Your task to perform on an android device: Open Youtube and go to "Your channel" Image 0: 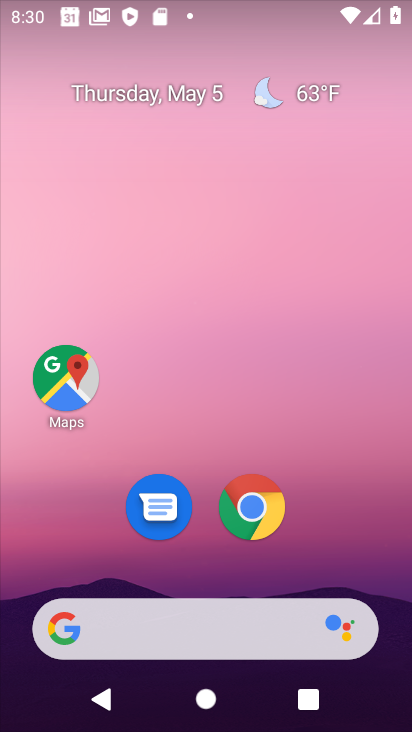
Step 0: drag from (360, 557) to (345, 9)
Your task to perform on an android device: Open Youtube and go to "Your channel" Image 1: 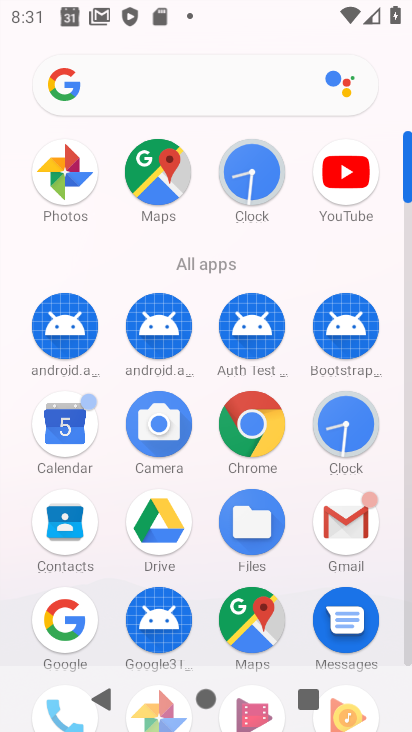
Step 1: drag from (189, 565) to (171, 65)
Your task to perform on an android device: Open Youtube and go to "Your channel" Image 2: 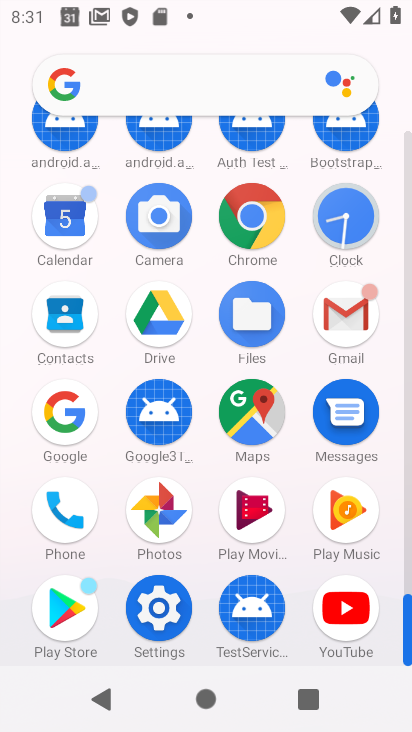
Step 2: click (356, 622)
Your task to perform on an android device: Open Youtube and go to "Your channel" Image 3: 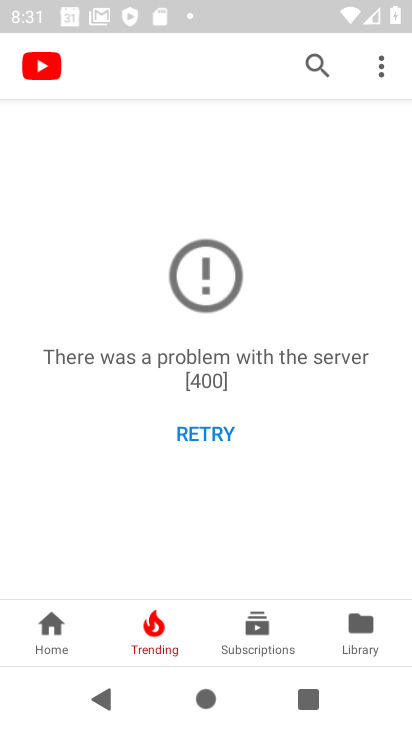
Step 3: click (350, 625)
Your task to perform on an android device: Open Youtube and go to "Your channel" Image 4: 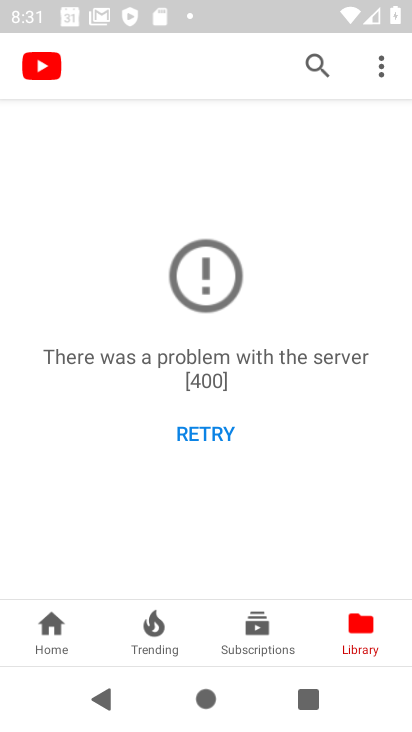
Step 4: click (51, 622)
Your task to perform on an android device: Open Youtube and go to "Your channel" Image 5: 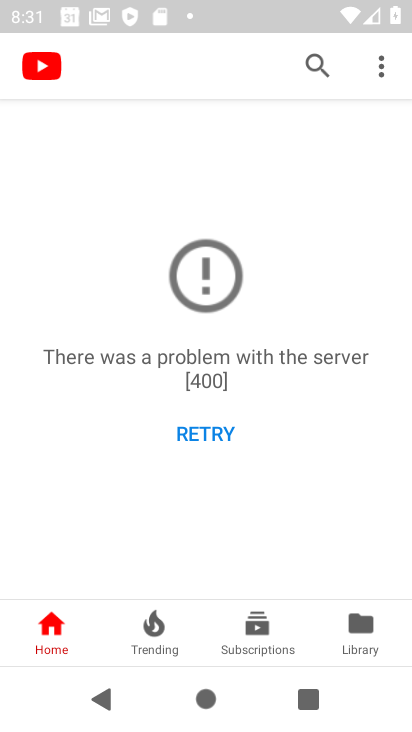
Step 5: click (166, 623)
Your task to perform on an android device: Open Youtube and go to "Your channel" Image 6: 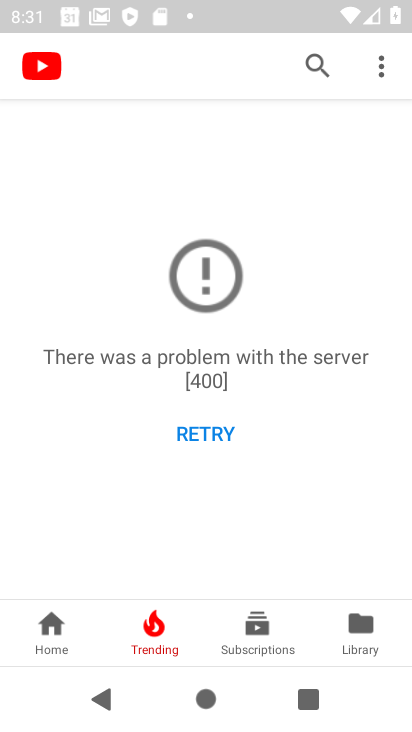
Step 6: click (211, 429)
Your task to perform on an android device: Open Youtube and go to "Your channel" Image 7: 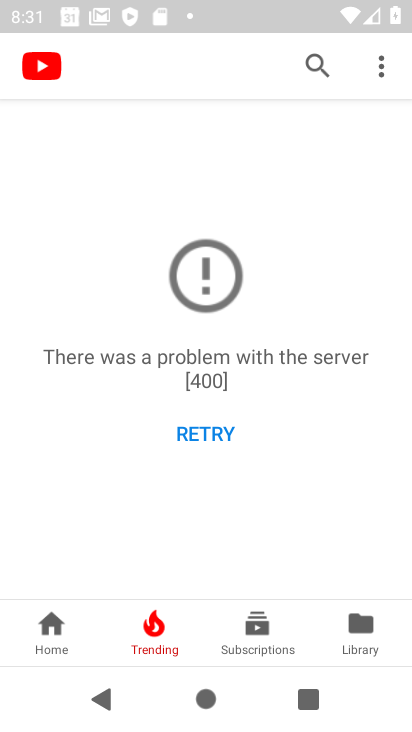
Step 7: task complete